Your task to perform on an android device: turn smart compose on in the gmail app Image 0: 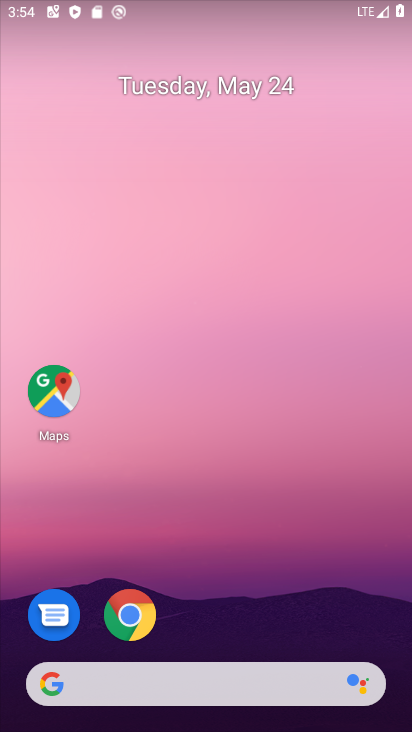
Step 0: drag from (208, 729) to (205, 0)
Your task to perform on an android device: turn smart compose on in the gmail app Image 1: 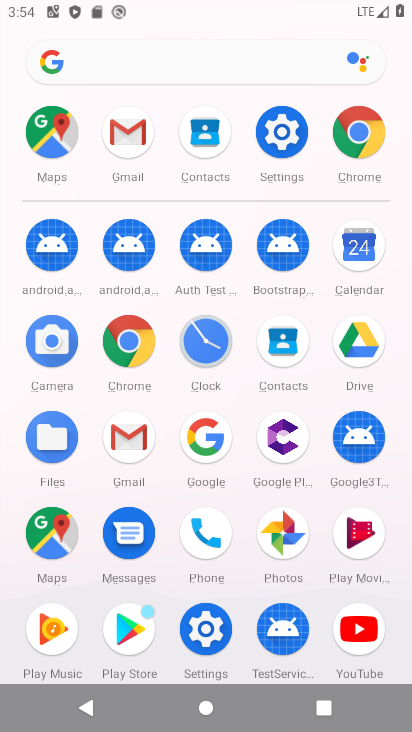
Step 1: click (115, 437)
Your task to perform on an android device: turn smart compose on in the gmail app Image 2: 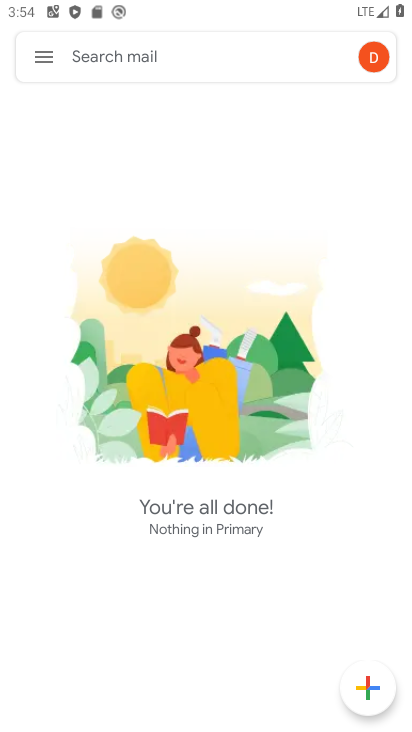
Step 2: click (42, 59)
Your task to perform on an android device: turn smart compose on in the gmail app Image 3: 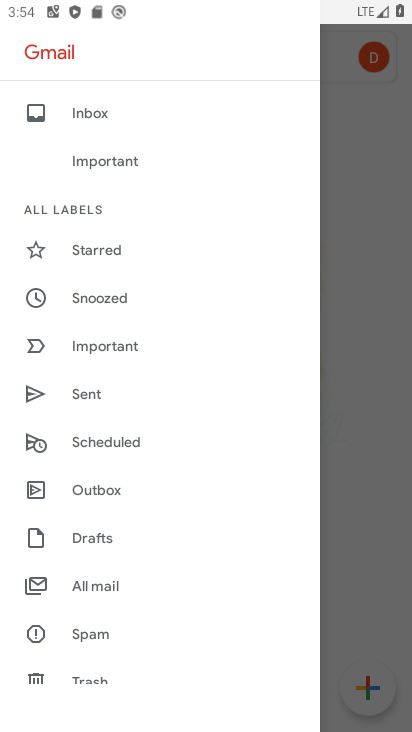
Step 3: drag from (93, 635) to (71, 266)
Your task to perform on an android device: turn smart compose on in the gmail app Image 4: 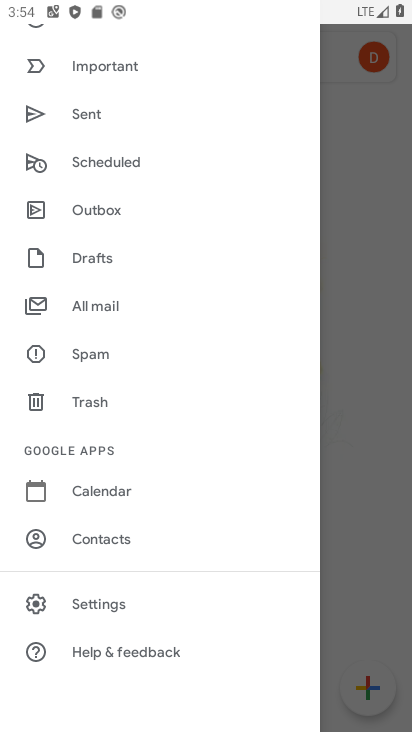
Step 4: click (87, 602)
Your task to perform on an android device: turn smart compose on in the gmail app Image 5: 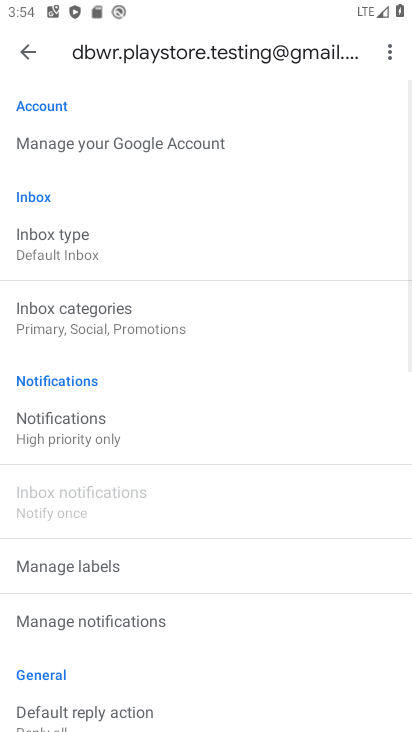
Step 5: task complete